Your task to perform on an android device: Go to Wikipedia Image 0: 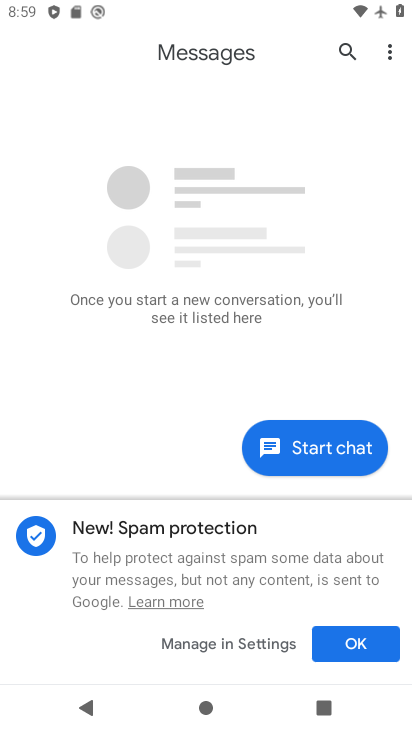
Step 0: press home button
Your task to perform on an android device: Go to Wikipedia Image 1: 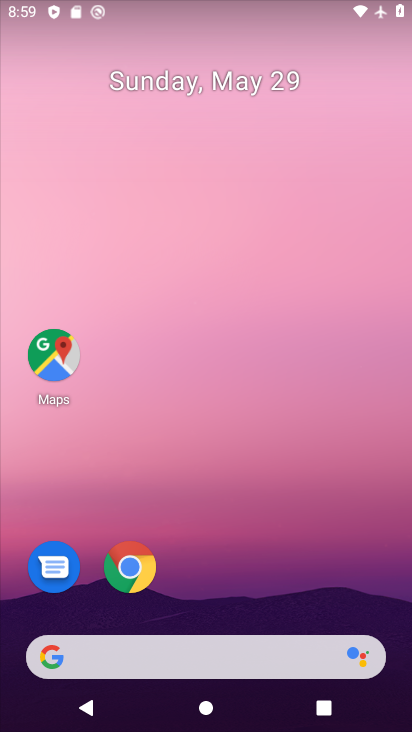
Step 1: click (129, 567)
Your task to perform on an android device: Go to Wikipedia Image 2: 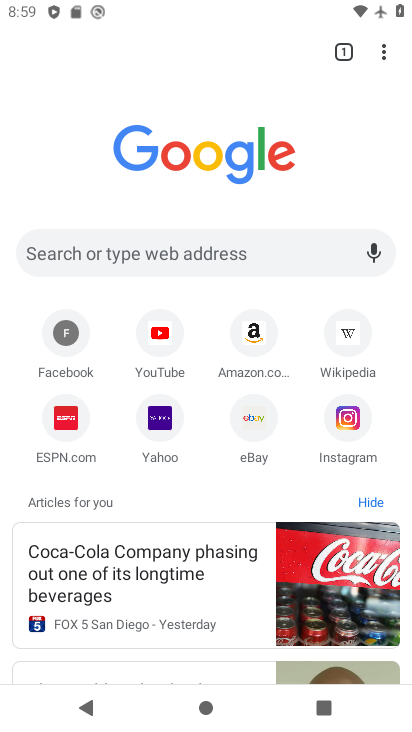
Step 2: click (353, 332)
Your task to perform on an android device: Go to Wikipedia Image 3: 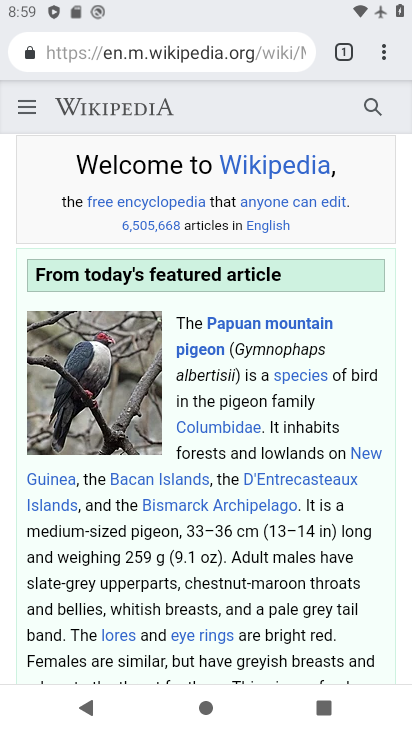
Step 3: task complete